Your task to perform on an android device: read, delete, or share a saved page in the chrome app Image 0: 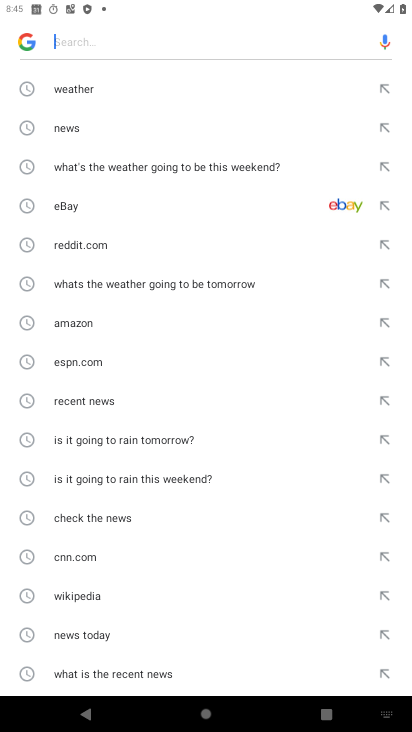
Step 0: press home button
Your task to perform on an android device: read, delete, or share a saved page in the chrome app Image 1: 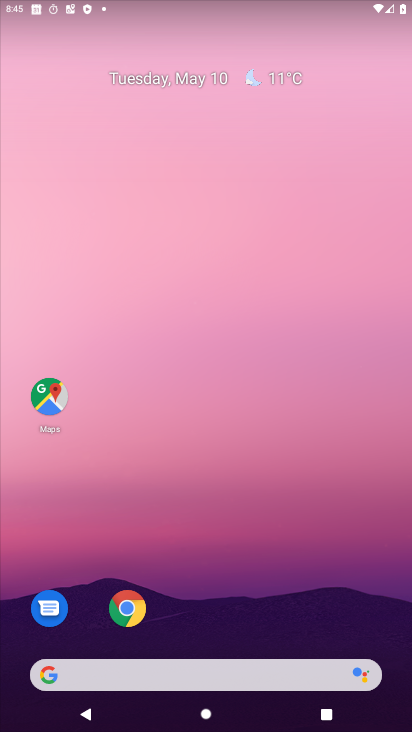
Step 1: click (109, 617)
Your task to perform on an android device: read, delete, or share a saved page in the chrome app Image 2: 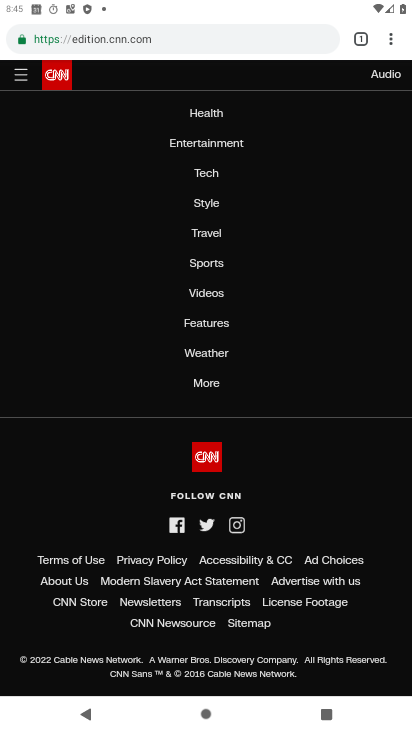
Step 2: click (390, 44)
Your task to perform on an android device: read, delete, or share a saved page in the chrome app Image 3: 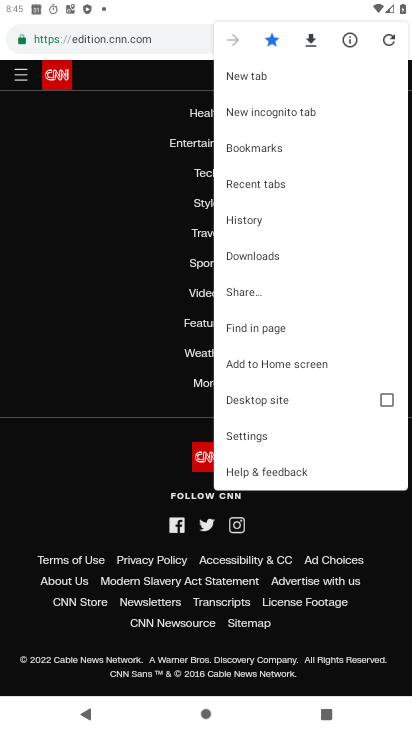
Step 3: click (247, 257)
Your task to perform on an android device: read, delete, or share a saved page in the chrome app Image 4: 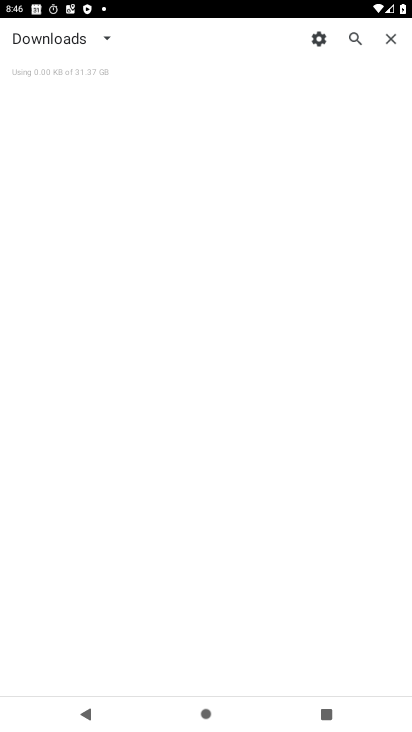
Step 4: task complete